Your task to perform on an android device: What is the news today? Image 0: 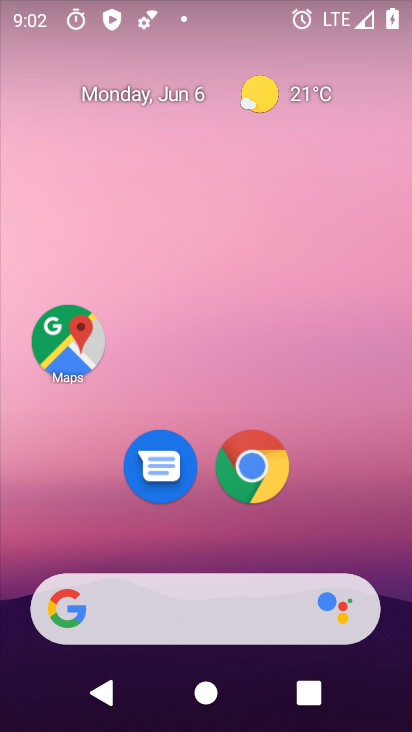
Step 0: drag from (150, 12) to (92, 29)
Your task to perform on an android device: What is the news today? Image 1: 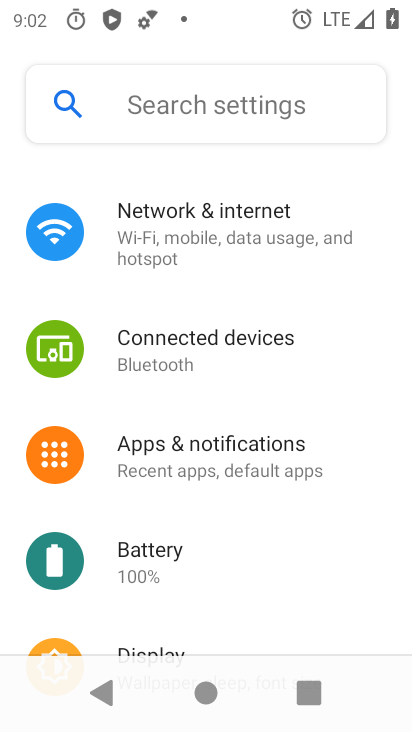
Step 1: drag from (242, 496) to (255, 125)
Your task to perform on an android device: What is the news today? Image 2: 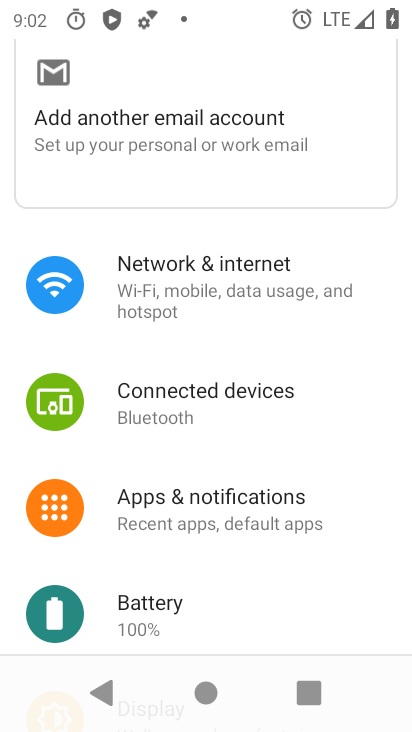
Step 2: press home button
Your task to perform on an android device: What is the news today? Image 3: 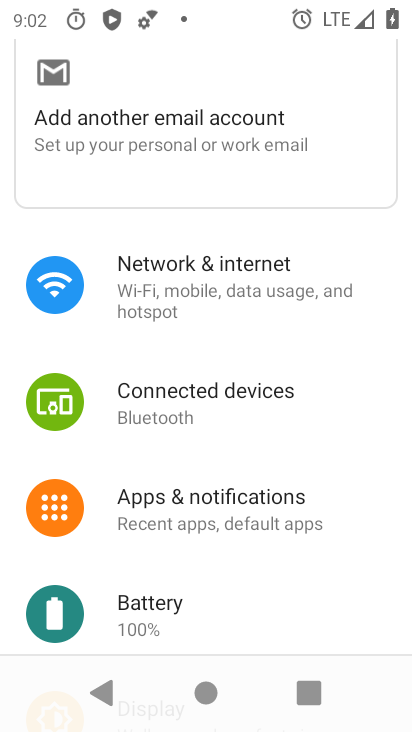
Step 3: press home button
Your task to perform on an android device: What is the news today? Image 4: 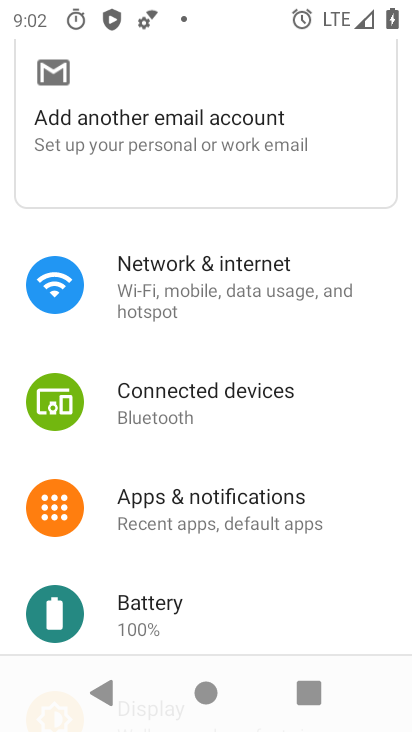
Step 4: drag from (230, 98) to (255, 5)
Your task to perform on an android device: What is the news today? Image 5: 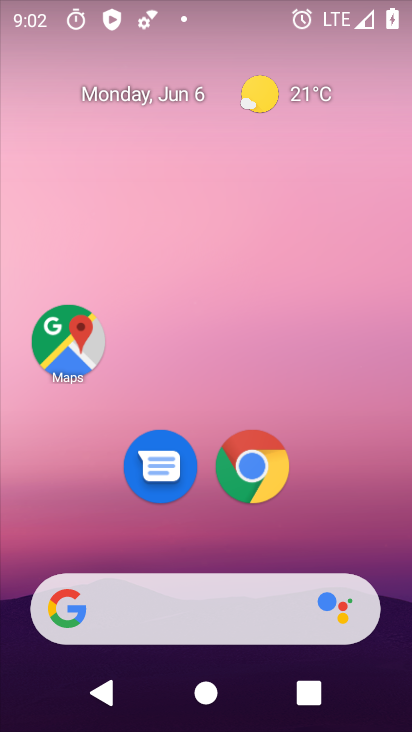
Step 5: drag from (211, 552) to (171, 10)
Your task to perform on an android device: What is the news today? Image 6: 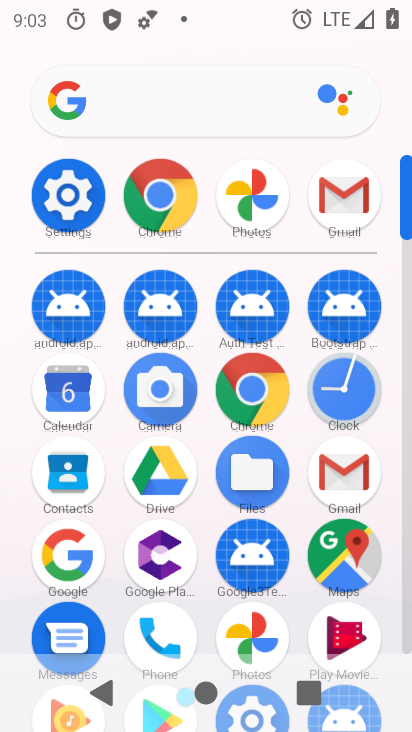
Step 6: click (190, 101)
Your task to perform on an android device: What is the news today? Image 7: 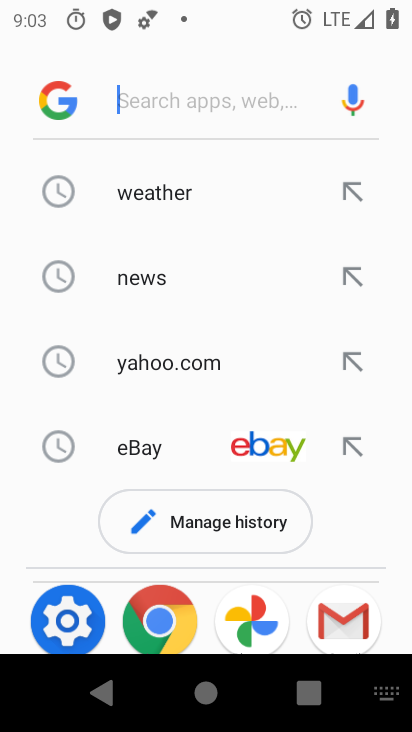
Step 7: type "news today?"
Your task to perform on an android device: What is the news today? Image 8: 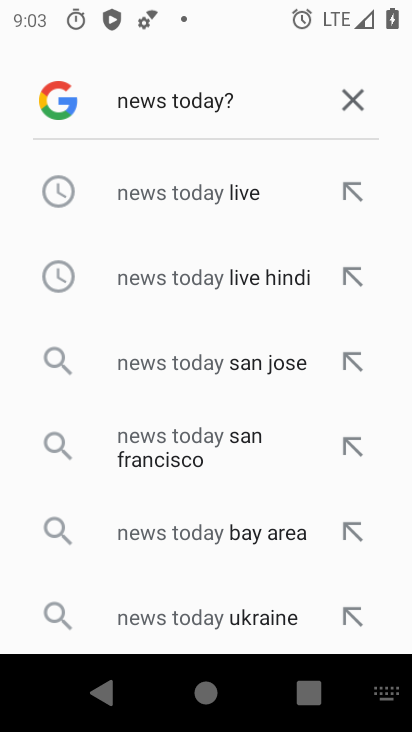
Step 8: click (123, 189)
Your task to perform on an android device: What is the news today? Image 9: 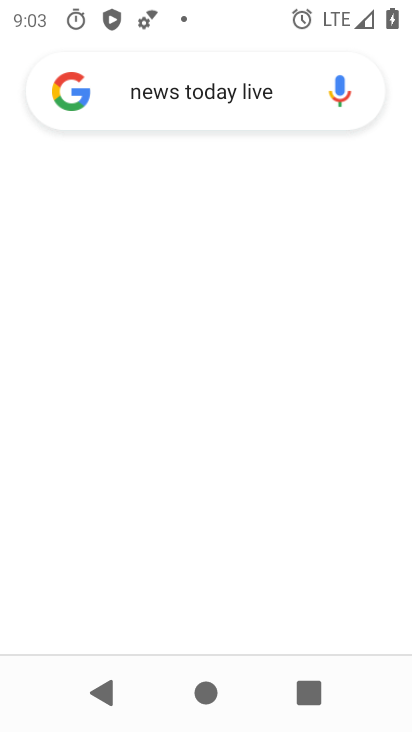
Step 9: task complete